Your task to perform on an android device: Go to Amazon Image 0: 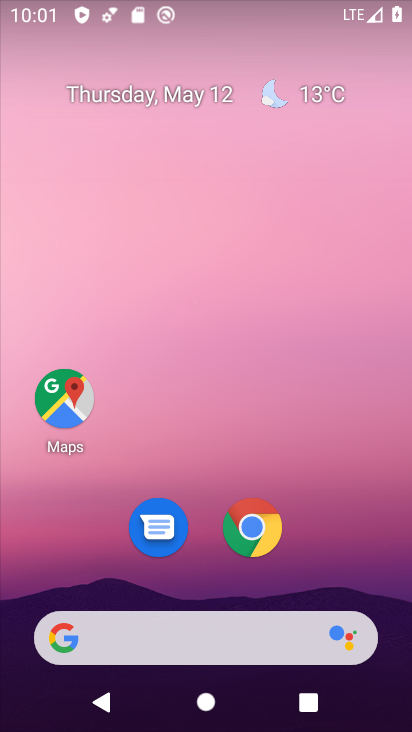
Step 0: drag from (341, 587) to (272, 108)
Your task to perform on an android device: Go to Amazon Image 1: 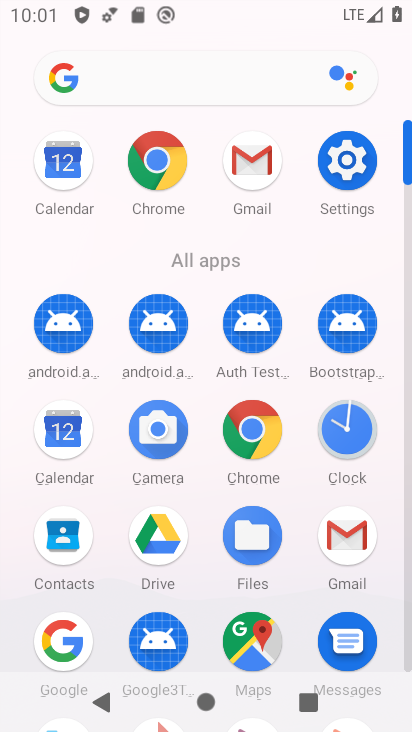
Step 1: drag from (192, 558) to (207, 315)
Your task to perform on an android device: Go to Amazon Image 2: 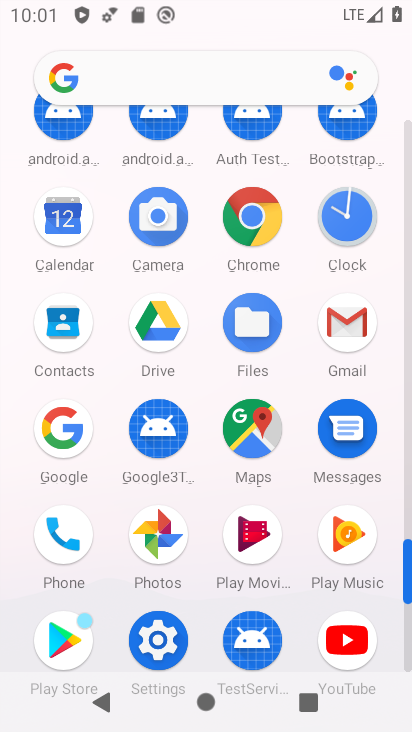
Step 2: click (58, 427)
Your task to perform on an android device: Go to Amazon Image 3: 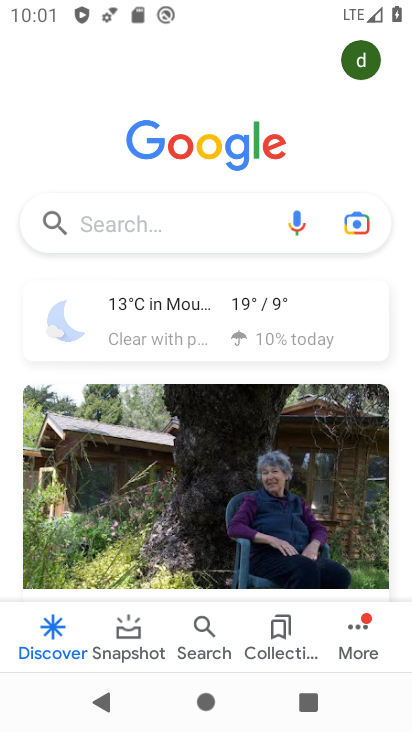
Step 3: click (169, 221)
Your task to perform on an android device: Go to Amazon Image 4: 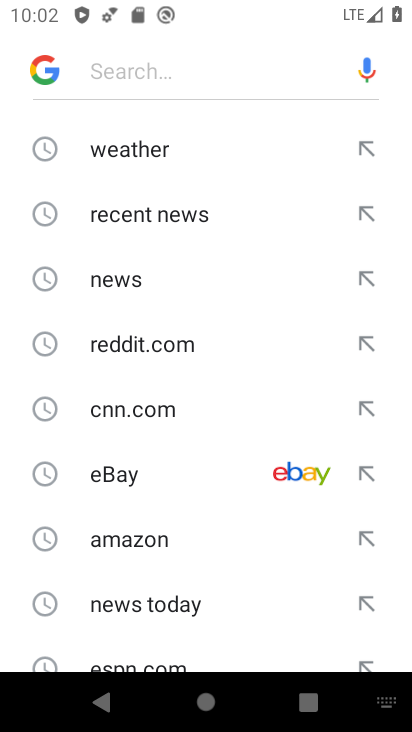
Step 4: click (127, 539)
Your task to perform on an android device: Go to Amazon Image 5: 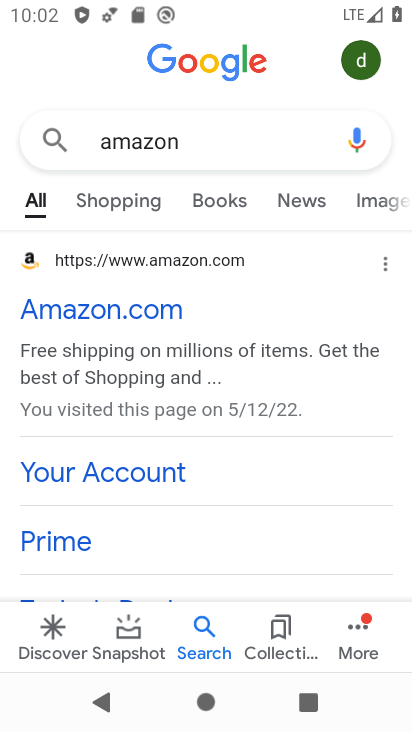
Step 5: click (108, 312)
Your task to perform on an android device: Go to Amazon Image 6: 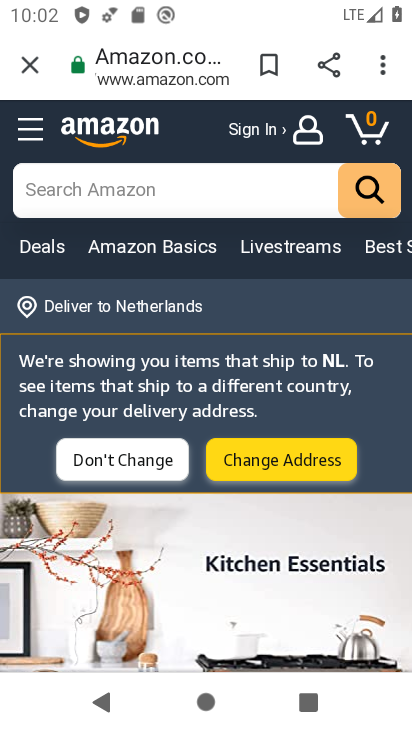
Step 6: task complete